Your task to perform on an android device: all mails in gmail Image 0: 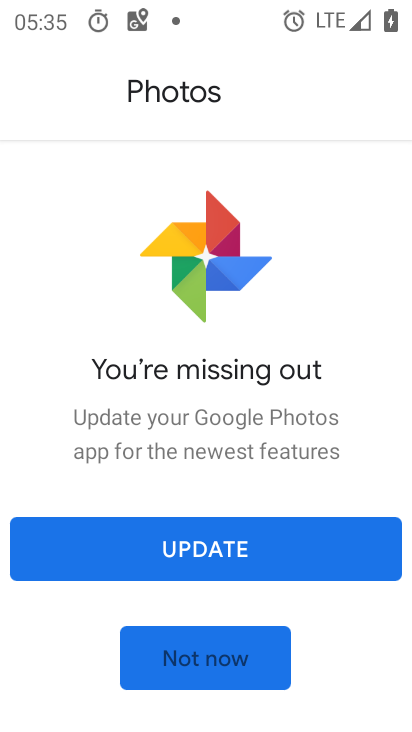
Step 0: press home button
Your task to perform on an android device: all mails in gmail Image 1: 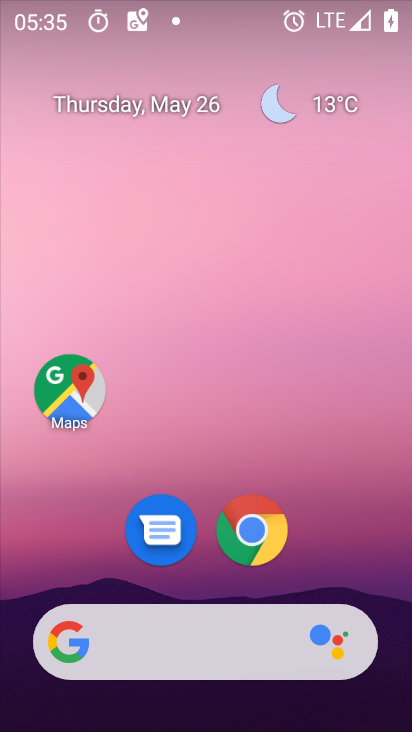
Step 1: drag from (285, 648) to (403, 416)
Your task to perform on an android device: all mails in gmail Image 2: 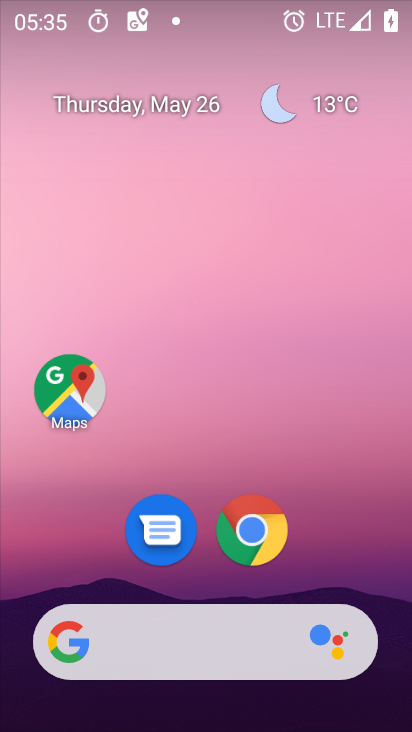
Step 2: click (334, 462)
Your task to perform on an android device: all mails in gmail Image 3: 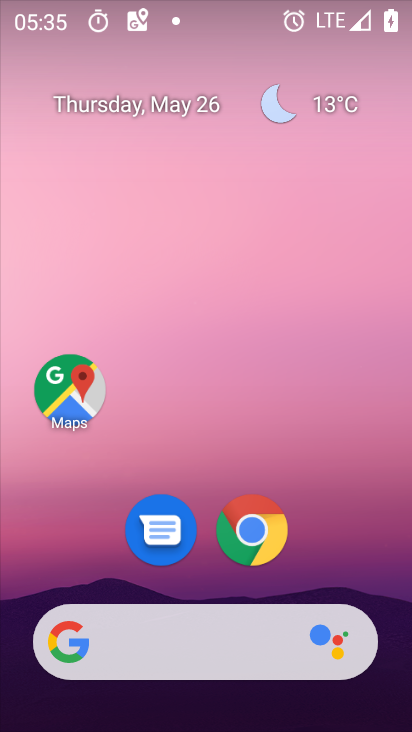
Step 3: drag from (259, 572) to (313, 9)
Your task to perform on an android device: all mails in gmail Image 4: 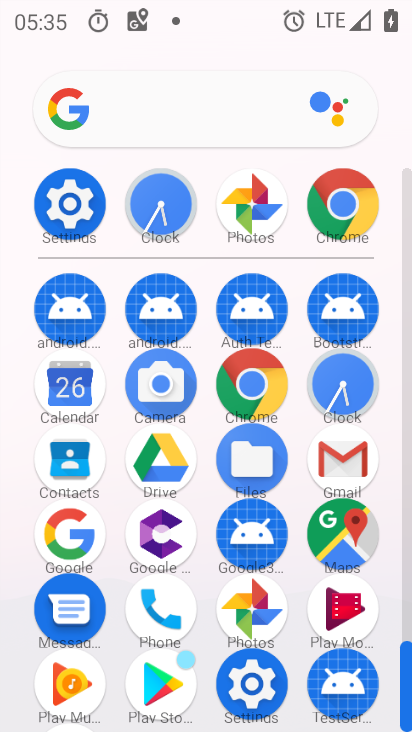
Step 4: click (348, 472)
Your task to perform on an android device: all mails in gmail Image 5: 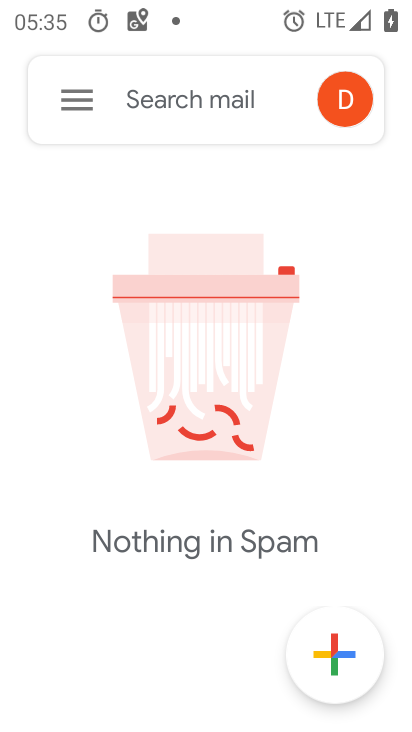
Step 5: click (82, 85)
Your task to perform on an android device: all mails in gmail Image 6: 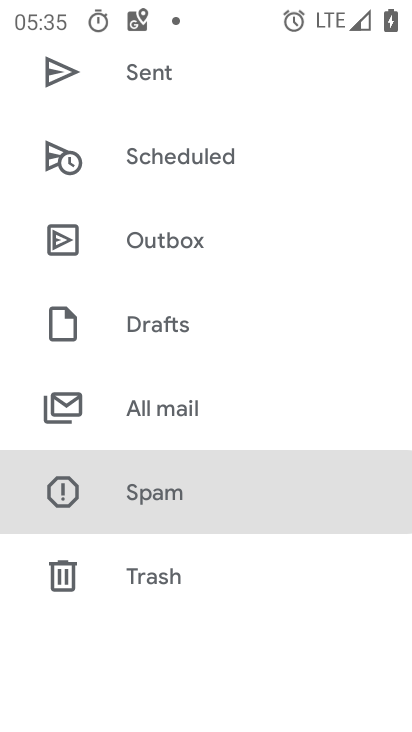
Step 6: click (183, 388)
Your task to perform on an android device: all mails in gmail Image 7: 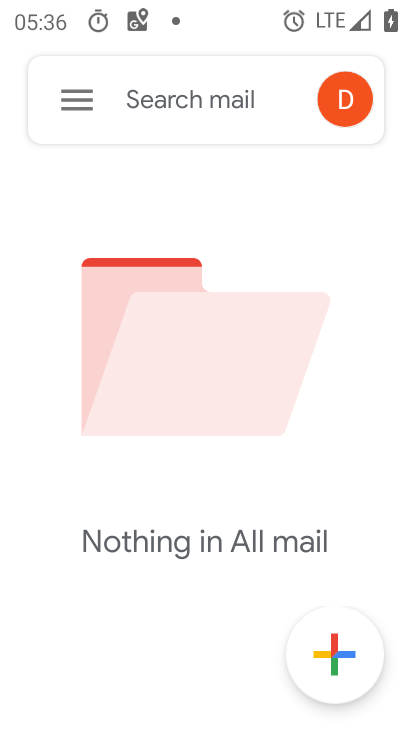
Step 7: task complete